Your task to perform on an android device: Go to CNN.com Image 0: 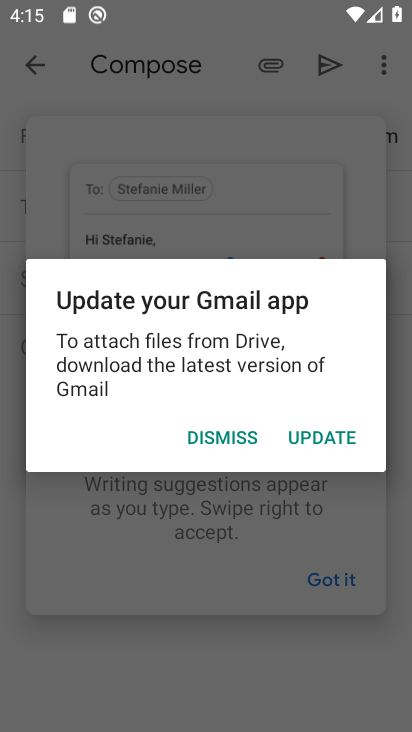
Step 0: press home button
Your task to perform on an android device: Go to CNN.com Image 1: 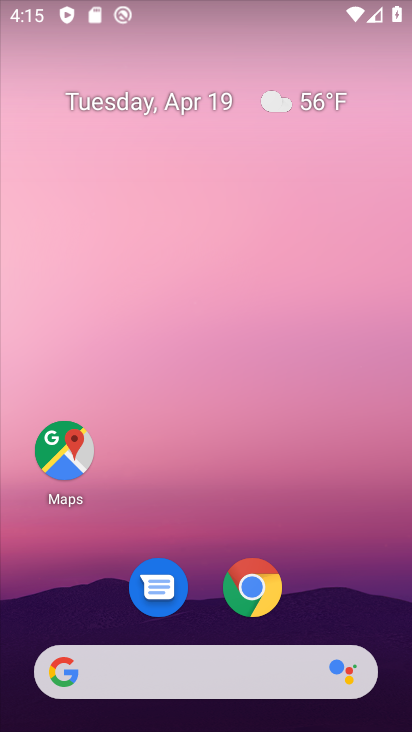
Step 1: click (245, 586)
Your task to perform on an android device: Go to CNN.com Image 2: 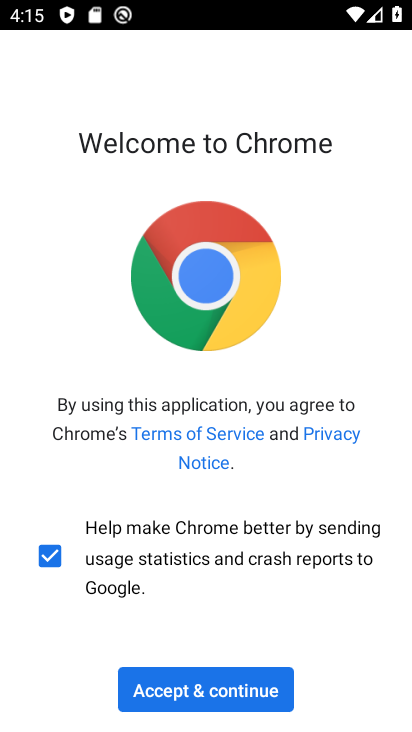
Step 2: click (219, 707)
Your task to perform on an android device: Go to CNN.com Image 3: 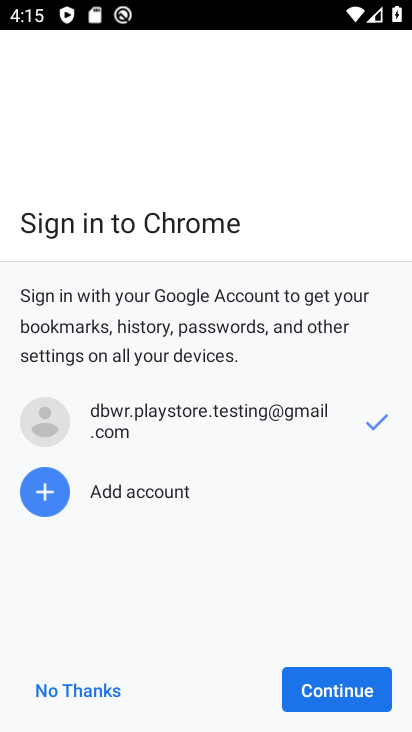
Step 3: click (345, 688)
Your task to perform on an android device: Go to CNN.com Image 4: 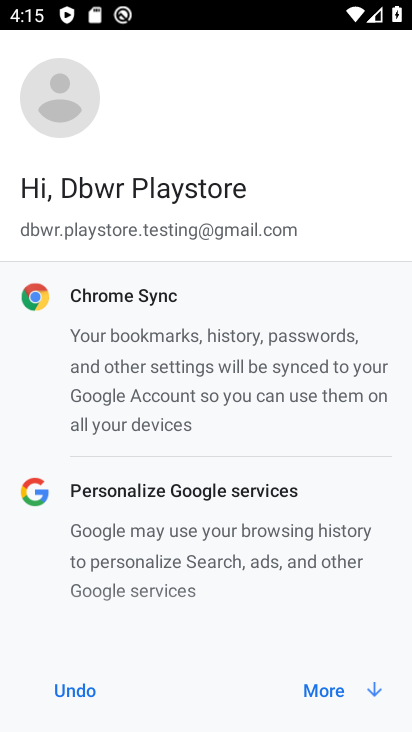
Step 4: click (326, 691)
Your task to perform on an android device: Go to CNN.com Image 5: 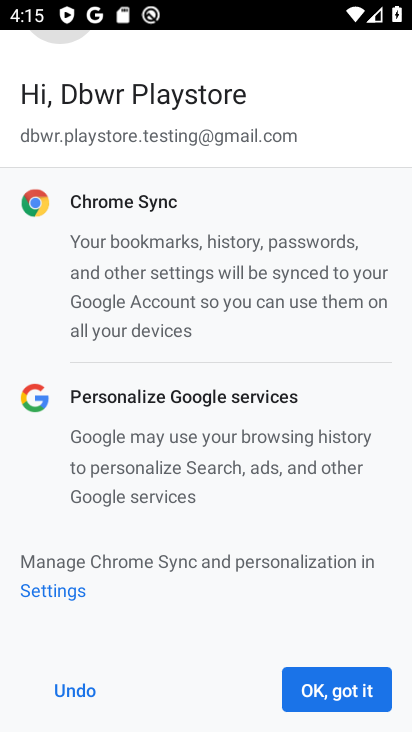
Step 5: click (319, 684)
Your task to perform on an android device: Go to CNN.com Image 6: 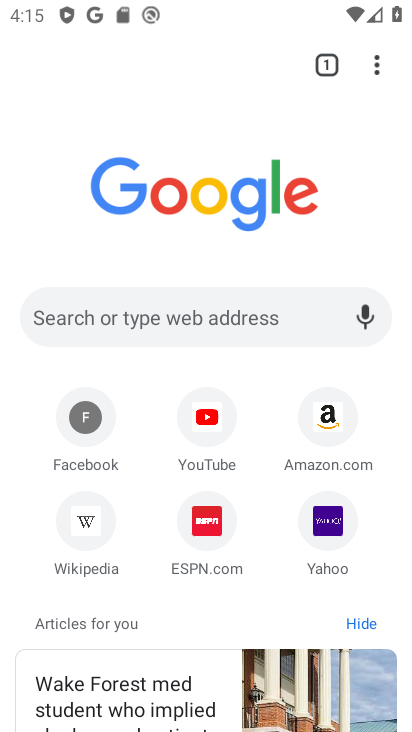
Step 6: click (182, 315)
Your task to perform on an android device: Go to CNN.com Image 7: 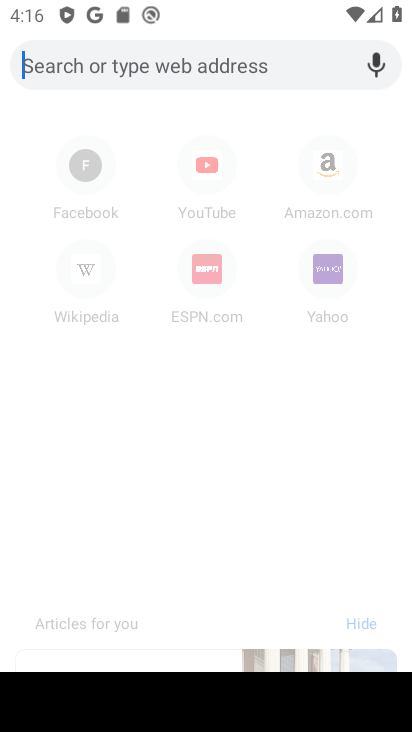
Step 7: type "CNN"
Your task to perform on an android device: Go to CNN.com Image 8: 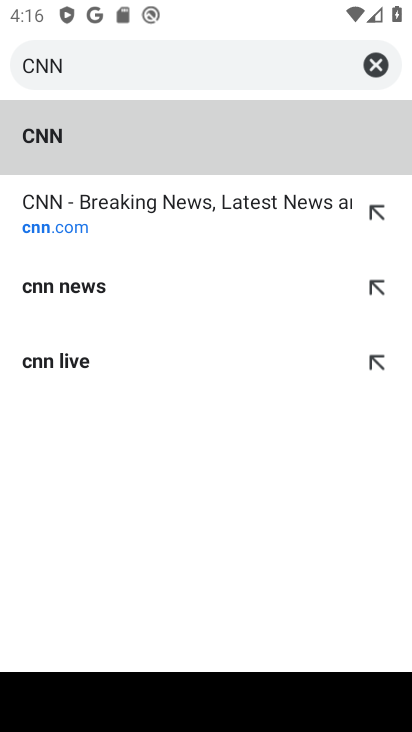
Step 8: type ",com"
Your task to perform on an android device: Go to CNN.com Image 9: 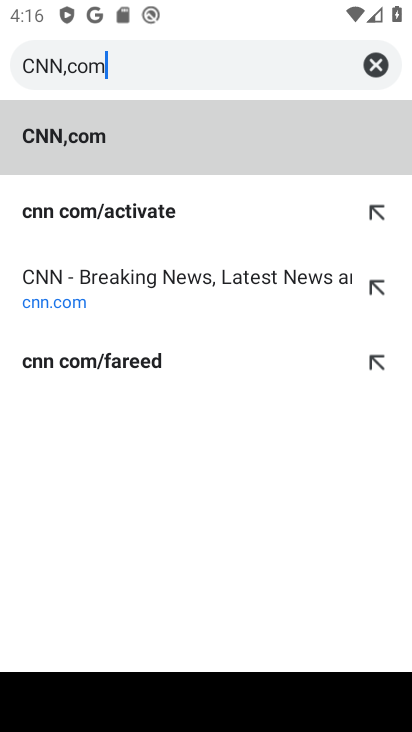
Step 9: click (91, 129)
Your task to perform on an android device: Go to CNN.com Image 10: 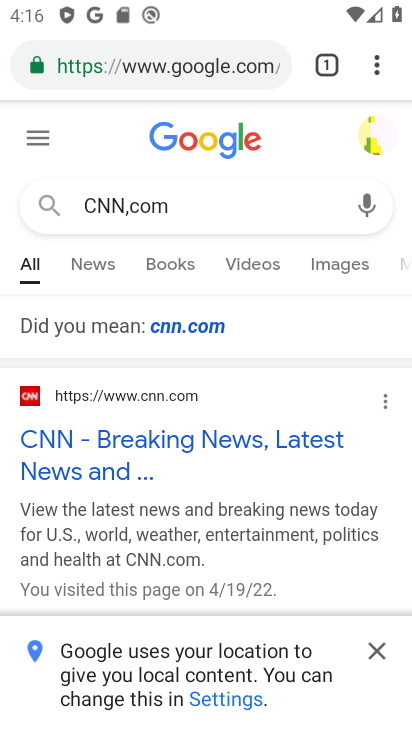
Step 10: click (193, 440)
Your task to perform on an android device: Go to CNN.com Image 11: 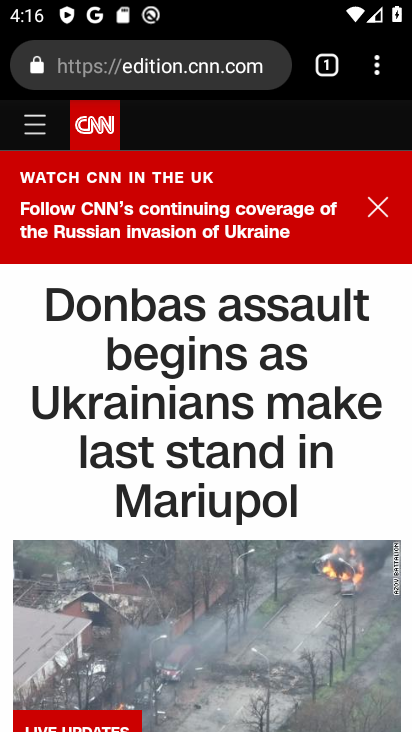
Step 11: task complete